Your task to perform on an android device: turn on showing notifications on the lock screen Image 0: 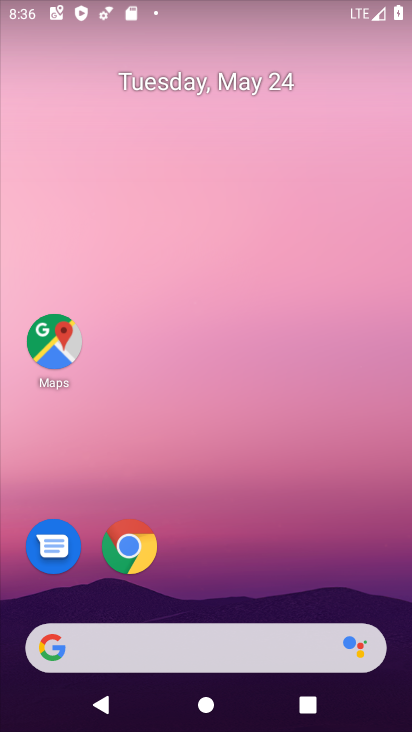
Step 0: drag from (255, 569) to (266, 24)
Your task to perform on an android device: turn on showing notifications on the lock screen Image 1: 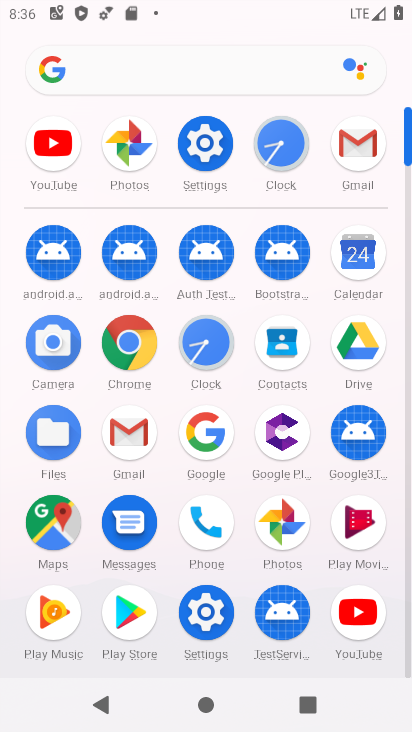
Step 1: click (204, 143)
Your task to perform on an android device: turn on showing notifications on the lock screen Image 2: 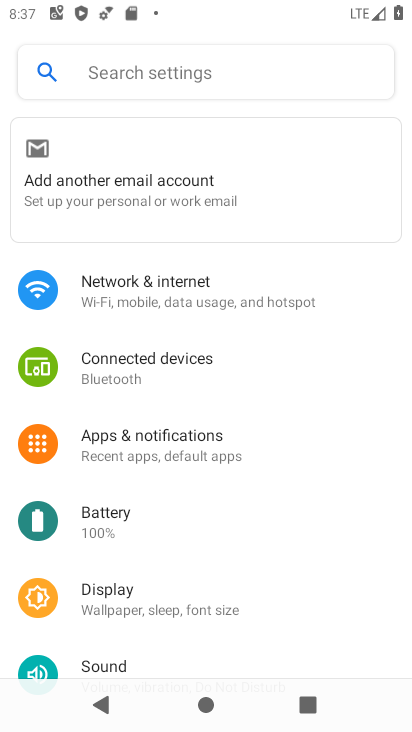
Step 2: click (181, 446)
Your task to perform on an android device: turn on showing notifications on the lock screen Image 3: 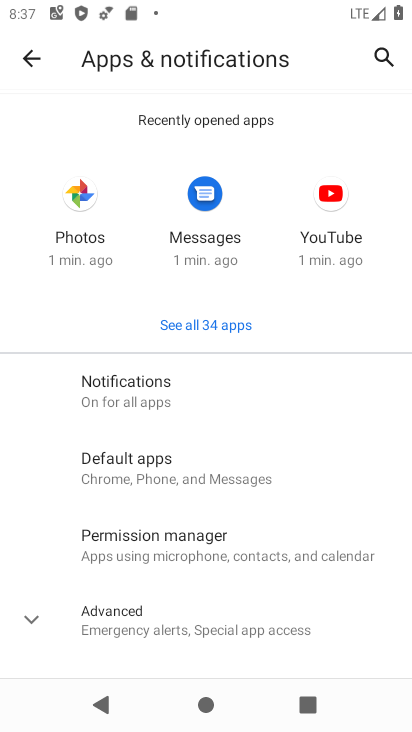
Step 3: click (195, 399)
Your task to perform on an android device: turn on showing notifications on the lock screen Image 4: 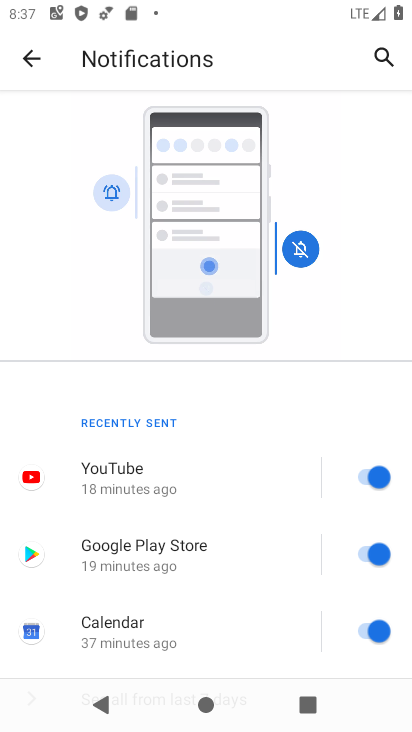
Step 4: task complete